Your task to perform on an android device: turn off location Image 0: 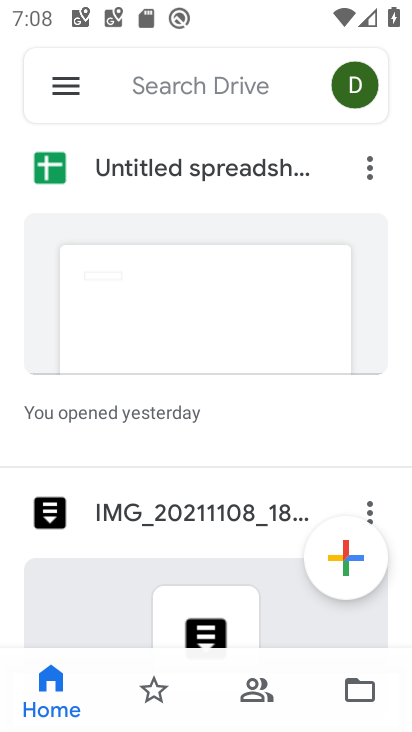
Step 0: press home button
Your task to perform on an android device: turn off location Image 1: 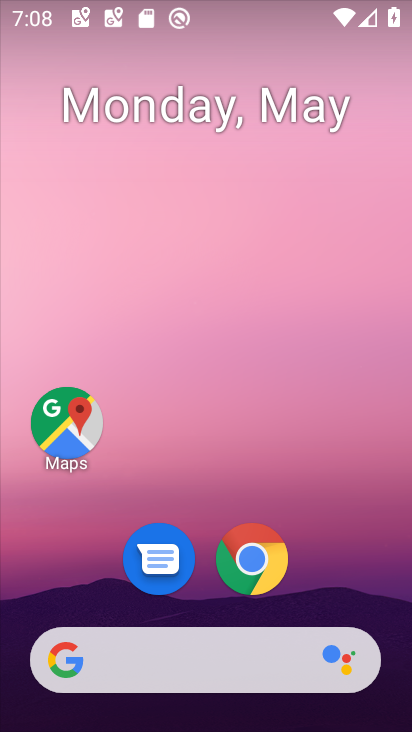
Step 1: drag from (400, 659) to (324, 114)
Your task to perform on an android device: turn off location Image 2: 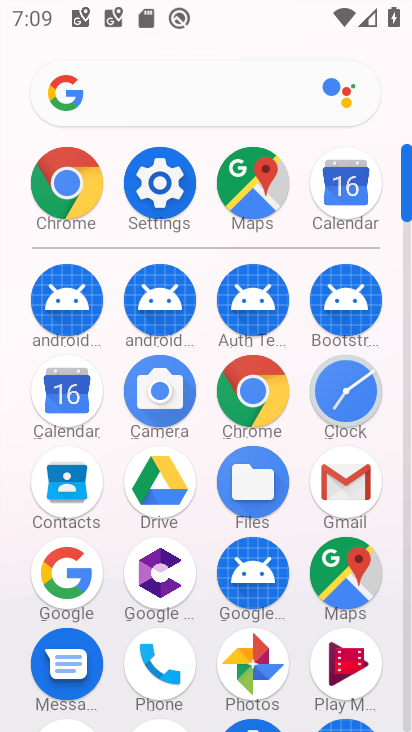
Step 2: click (162, 197)
Your task to perform on an android device: turn off location Image 3: 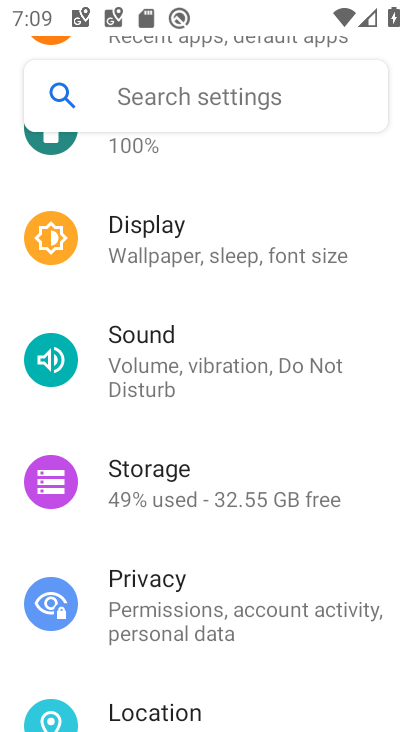
Step 3: click (182, 706)
Your task to perform on an android device: turn off location Image 4: 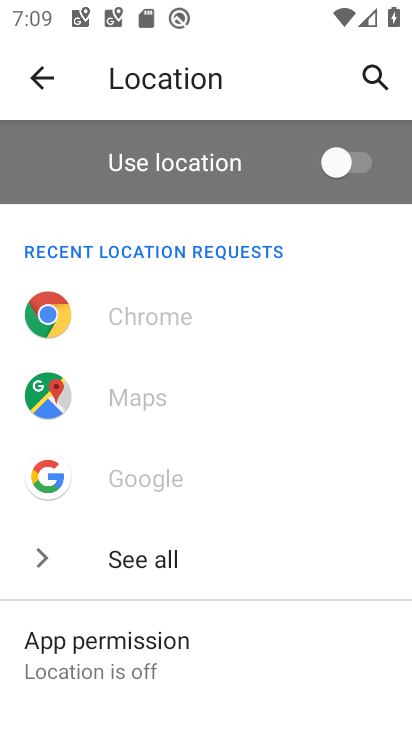
Step 4: task complete